Your task to perform on an android device: When is my next appointment? Image 0: 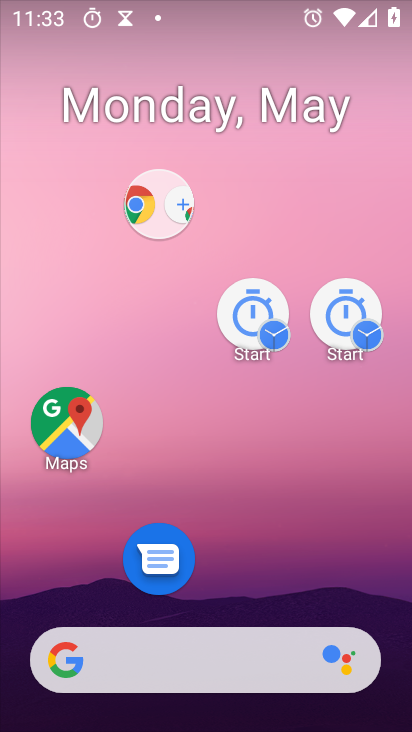
Step 0: drag from (179, 424) to (95, 148)
Your task to perform on an android device: When is my next appointment? Image 1: 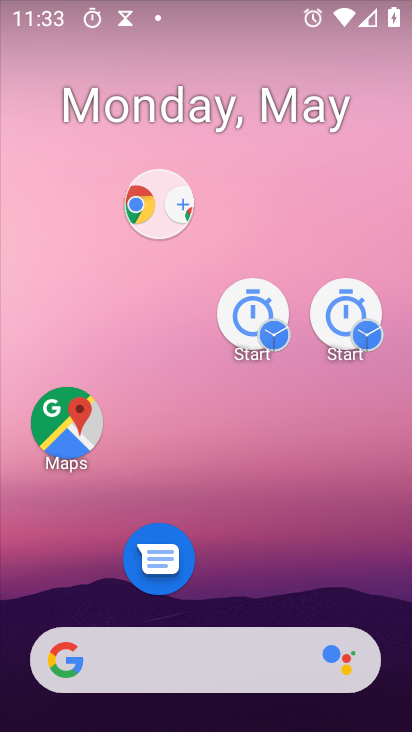
Step 1: drag from (203, 680) to (133, 208)
Your task to perform on an android device: When is my next appointment? Image 2: 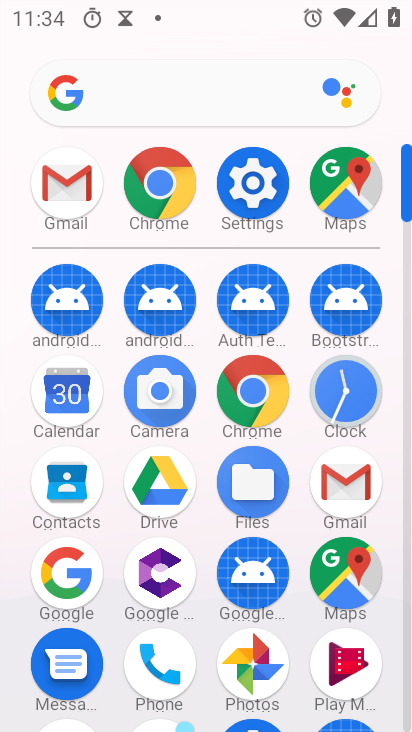
Step 2: click (71, 394)
Your task to perform on an android device: When is my next appointment? Image 3: 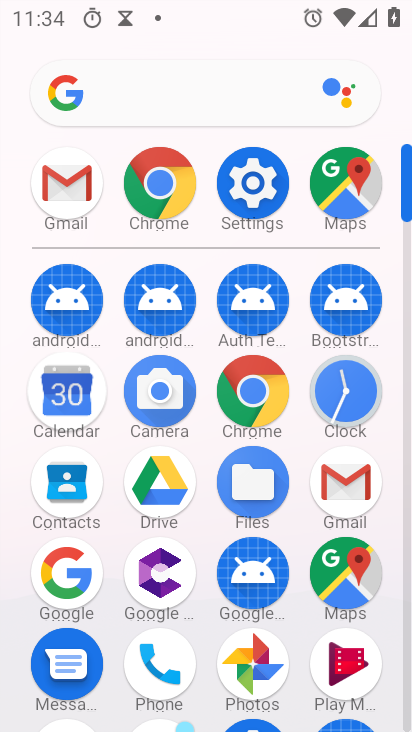
Step 3: click (67, 390)
Your task to perform on an android device: When is my next appointment? Image 4: 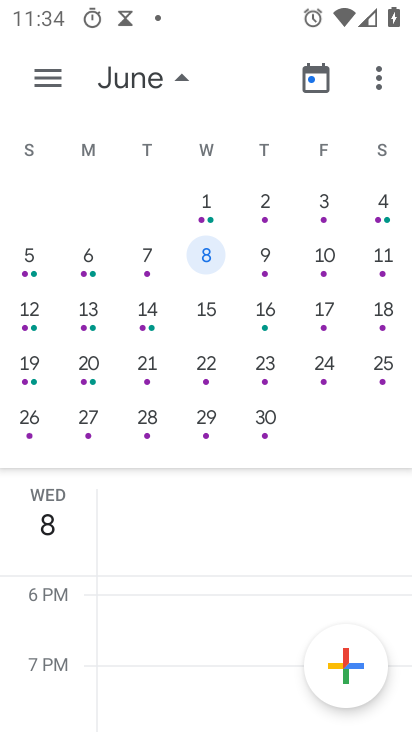
Step 4: drag from (107, 376) to (65, 385)
Your task to perform on an android device: When is my next appointment? Image 5: 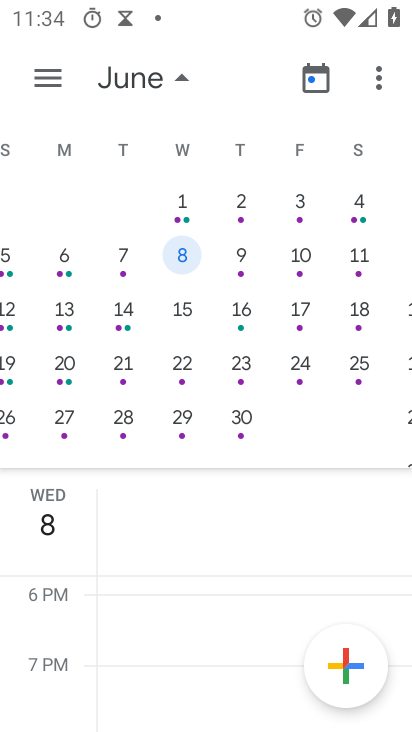
Step 5: drag from (268, 380) to (5, 319)
Your task to perform on an android device: When is my next appointment? Image 6: 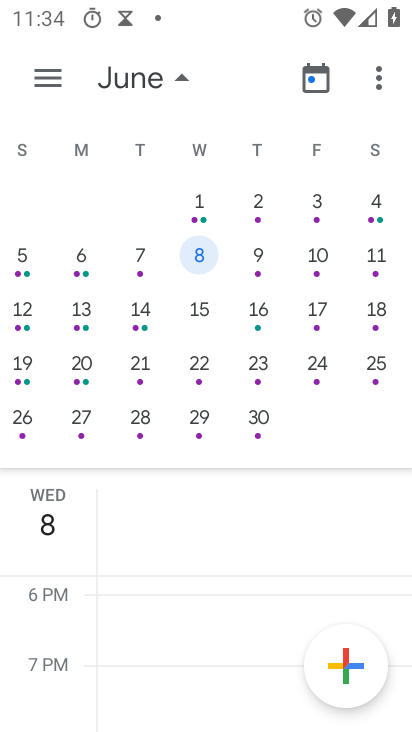
Step 6: drag from (227, 290) to (72, 341)
Your task to perform on an android device: When is my next appointment? Image 7: 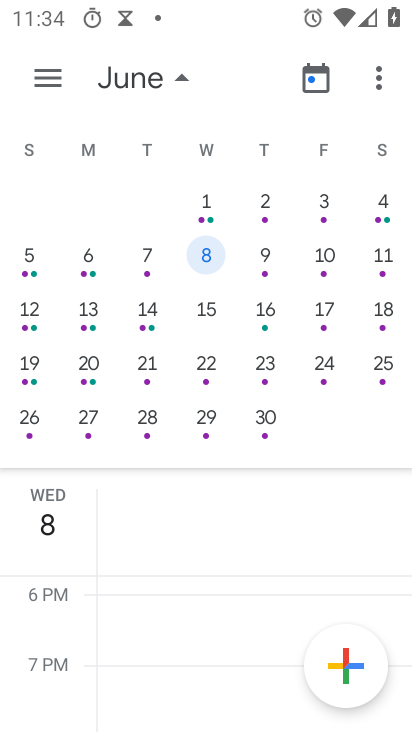
Step 7: drag from (100, 360) to (403, 306)
Your task to perform on an android device: When is my next appointment? Image 8: 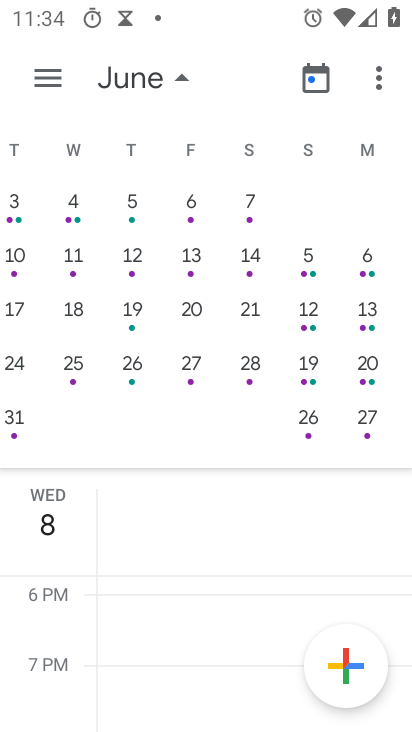
Step 8: drag from (65, 356) to (366, 415)
Your task to perform on an android device: When is my next appointment? Image 9: 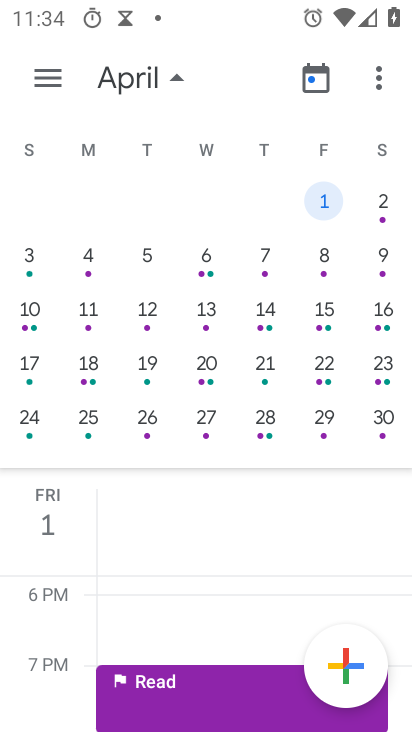
Step 9: drag from (363, 384) to (163, 439)
Your task to perform on an android device: When is my next appointment? Image 10: 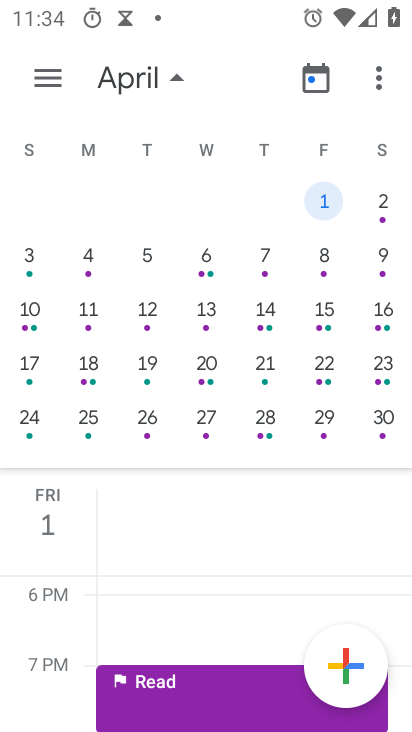
Step 10: drag from (306, 369) to (62, 428)
Your task to perform on an android device: When is my next appointment? Image 11: 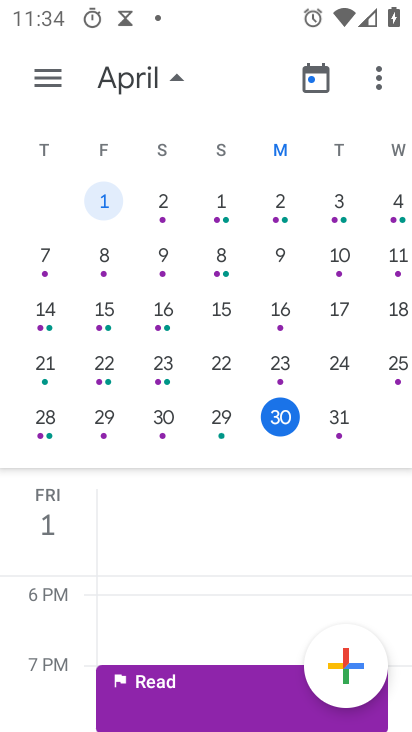
Step 11: drag from (227, 377) to (33, 391)
Your task to perform on an android device: When is my next appointment? Image 12: 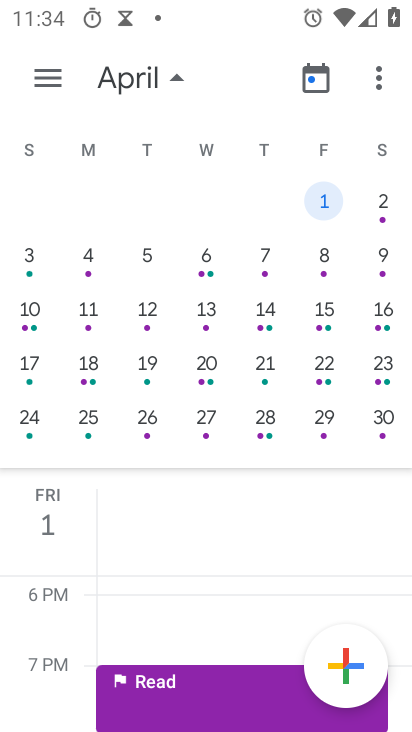
Step 12: drag from (377, 393) to (4, 394)
Your task to perform on an android device: When is my next appointment? Image 13: 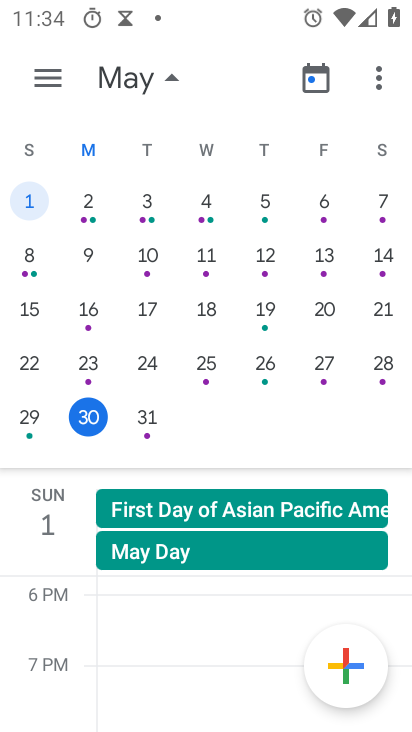
Step 13: drag from (130, 569) to (138, 159)
Your task to perform on an android device: When is my next appointment? Image 14: 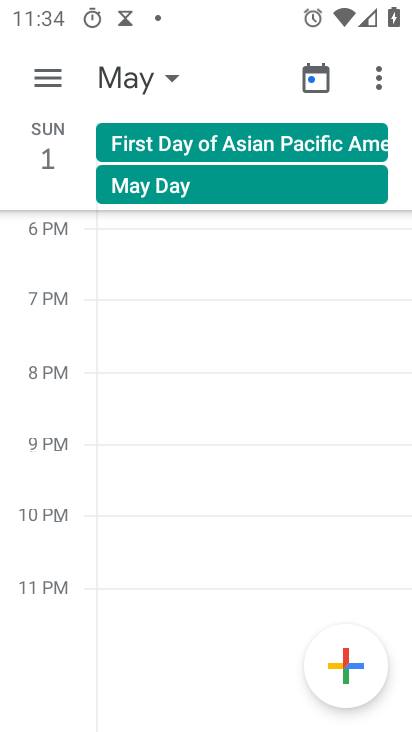
Step 14: drag from (117, 447) to (137, 153)
Your task to perform on an android device: When is my next appointment? Image 15: 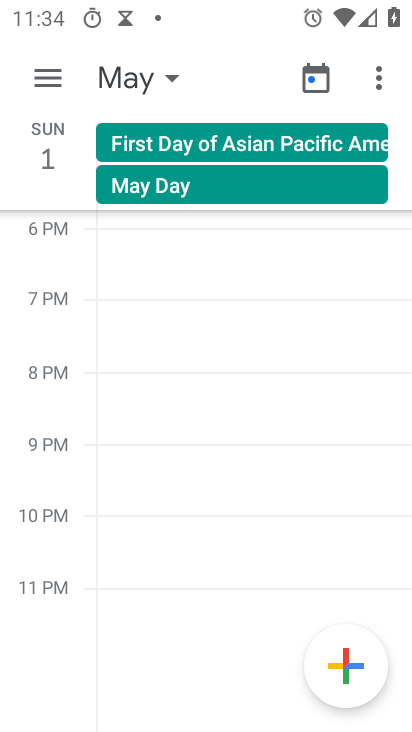
Step 15: drag from (186, 310) to (150, 75)
Your task to perform on an android device: When is my next appointment? Image 16: 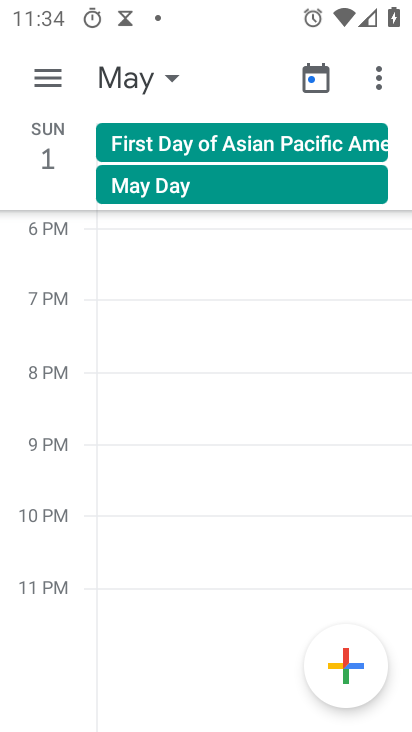
Step 16: drag from (167, 465) to (218, 58)
Your task to perform on an android device: When is my next appointment? Image 17: 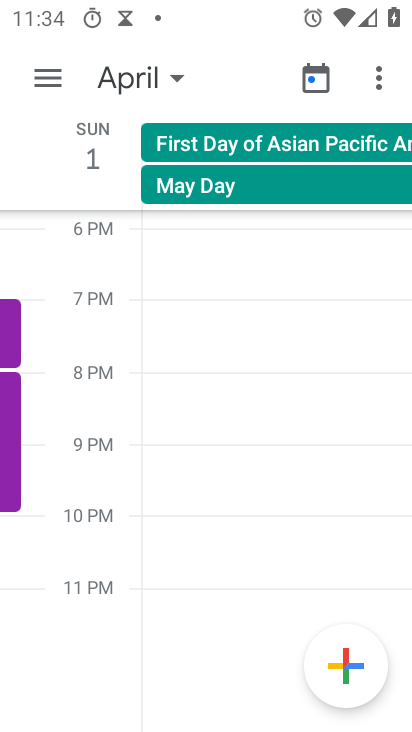
Step 17: drag from (111, 458) to (136, 174)
Your task to perform on an android device: When is my next appointment? Image 18: 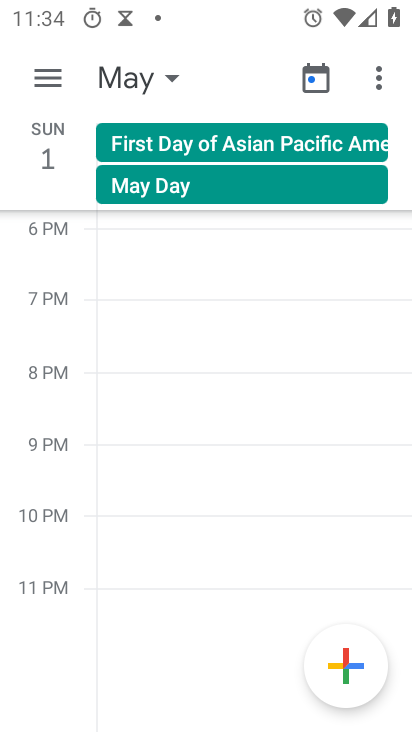
Step 18: drag from (179, 447) to (191, 195)
Your task to perform on an android device: When is my next appointment? Image 19: 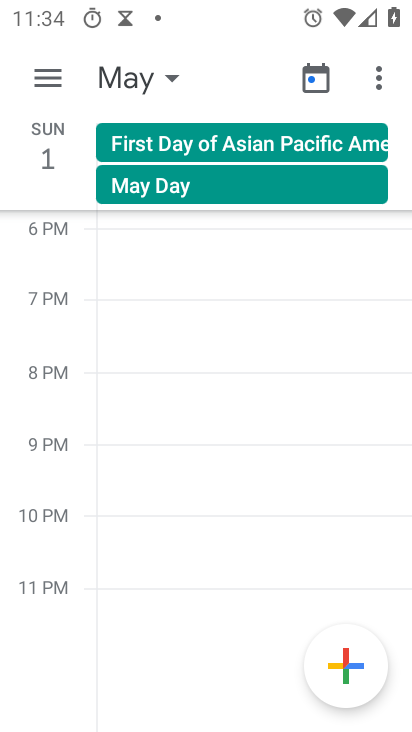
Step 19: drag from (206, 629) to (209, 210)
Your task to perform on an android device: When is my next appointment? Image 20: 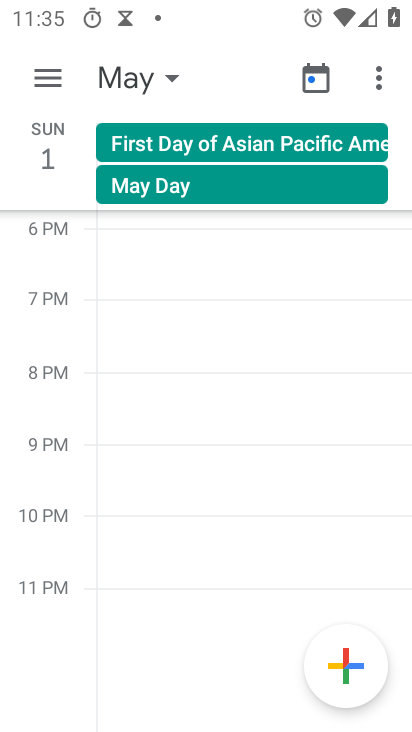
Step 20: drag from (88, 557) to (142, 179)
Your task to perform on an android device: When is my next appointment? Image 21: 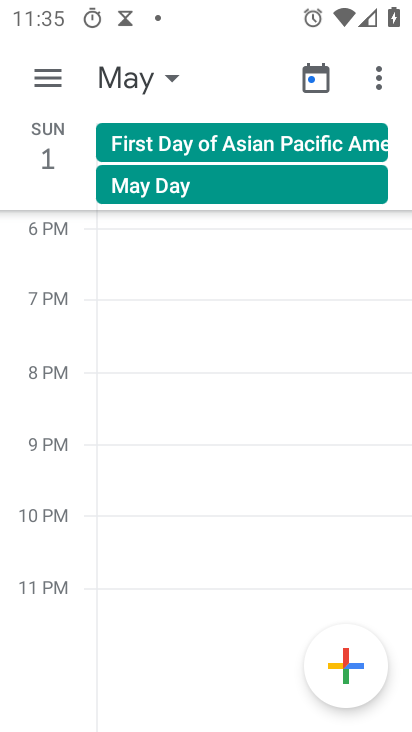
Step 21: drag from (166, 537) to (166, 86)
Your task to perform on an android device: When is my next appointment? Image 22: 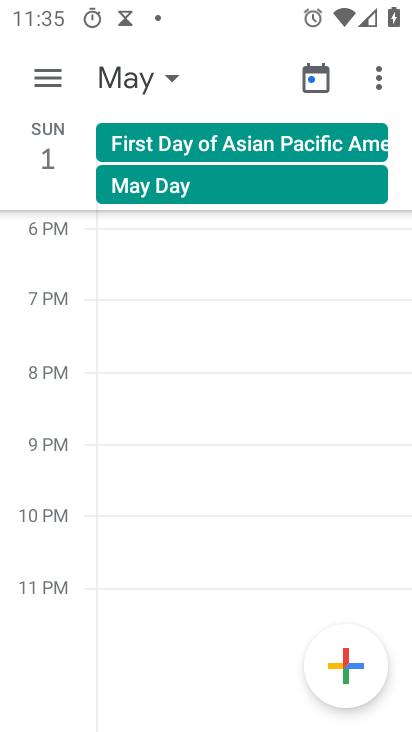
Step 22: click (55, 79)
Your task to perform on an android device: When is my next appointment? Image 23: 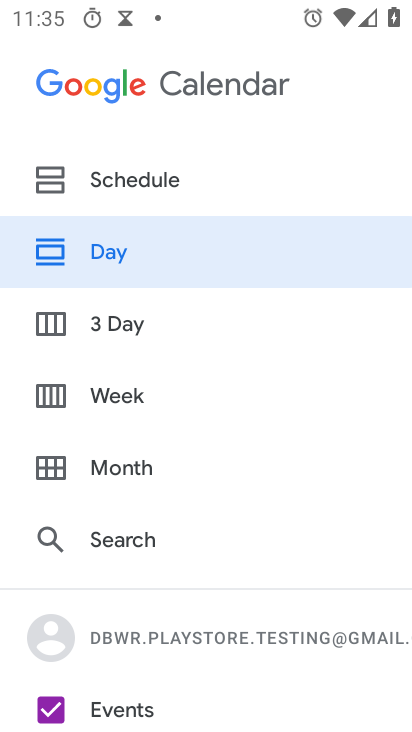
Step 23: click (137, 180)
Your task to perform on an android device: When is my next appointment? Image 24: 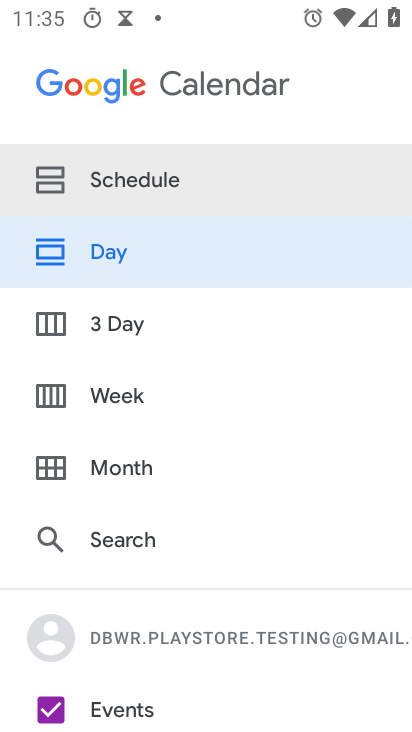
Step 24: click (137, 180)
Your task to perform on an android device: When is my next appointment? Image 25: 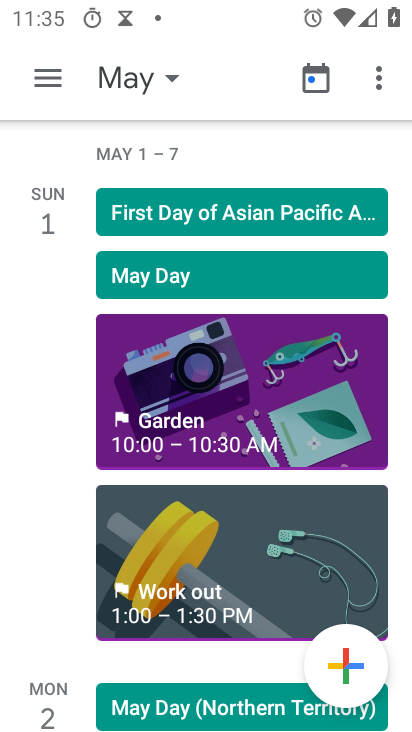
Step 25: drag from (177, 496) to (161, 149)
Your task to perform on an android device: When is my next appointment? Image 26: 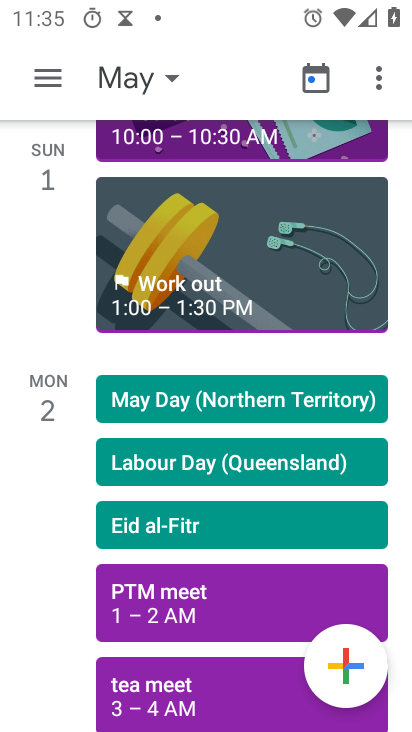
Step 26: drag from (160, 498) to (154, 243)
Your task to perform on an android device: When is my next appointment? Image 27: 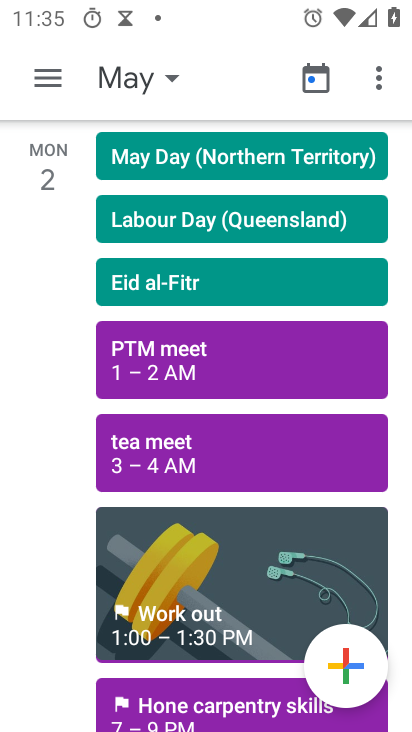
Step 27: click (163, 180)
Your task to perform on an android device: When is my next appointment? Image 28: 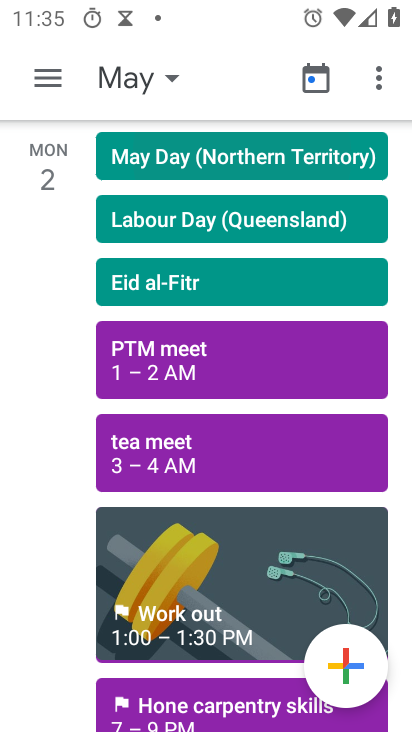
Step 28: drag from (163, 416) to (180, 89)
Your task to perform on an android device: When is my next appointment? Image 29: 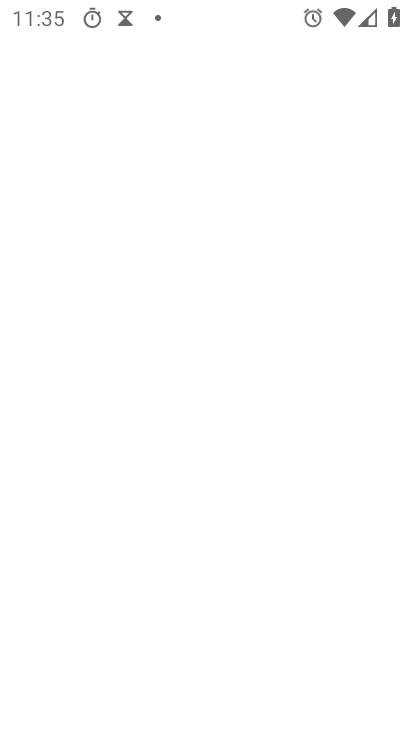
Step 29: drag from (151, 472) to (151, 119)
Your task to perform on an android device: When is my next appointment? Image 30: 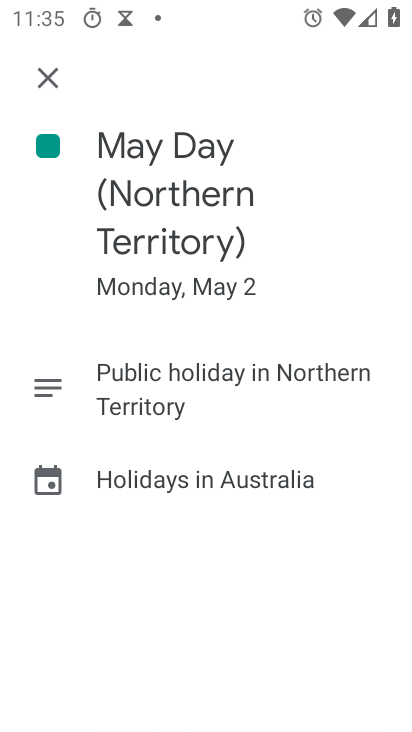
Step 30: drag from (158, 482) to (157, 228)
Your task to perform on an android device: When is my next appointment? Image 31: 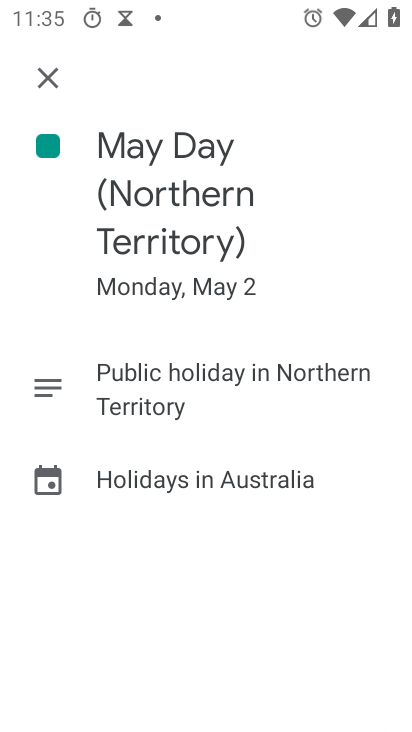
Step 31: click (52, 64)
Your task to perform on an android device: When is my next appointment? Image 32: 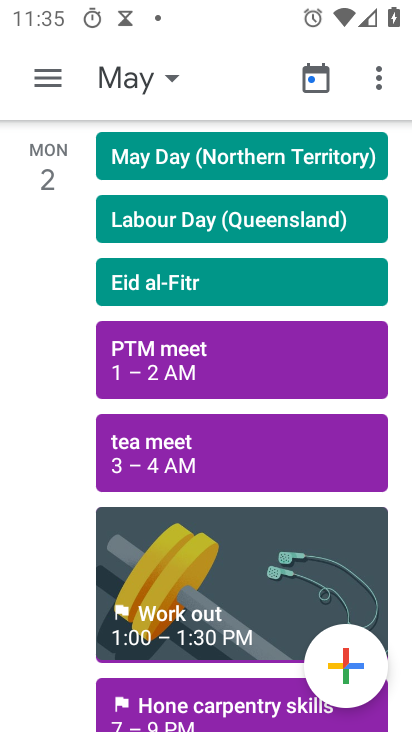
Step 32: task complete